Your task to perform on an android device: change notifications settings Image 0: 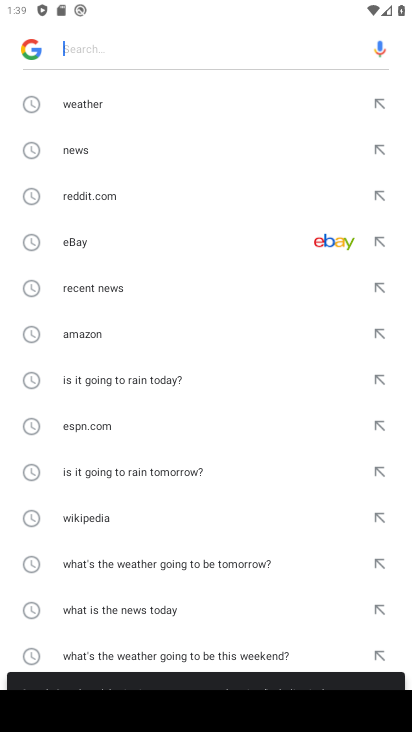
Step 0: press home button
Your task to perform on an android device: change notifications settings Image 1: 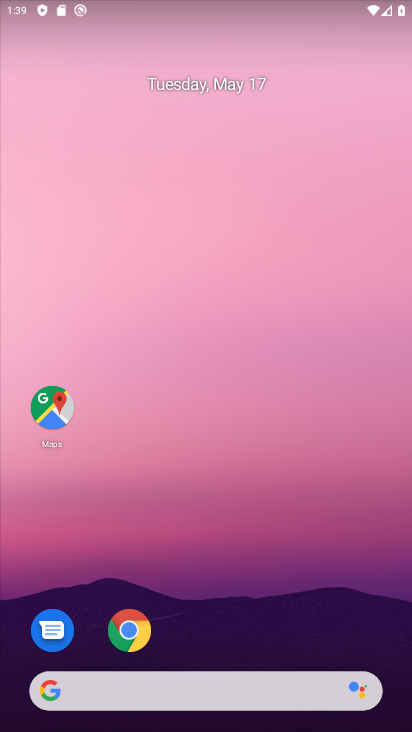
Step 1: drag from (335, 600) to (285, 207)
Your task to perform on an android device: change notifications settings Image 2: 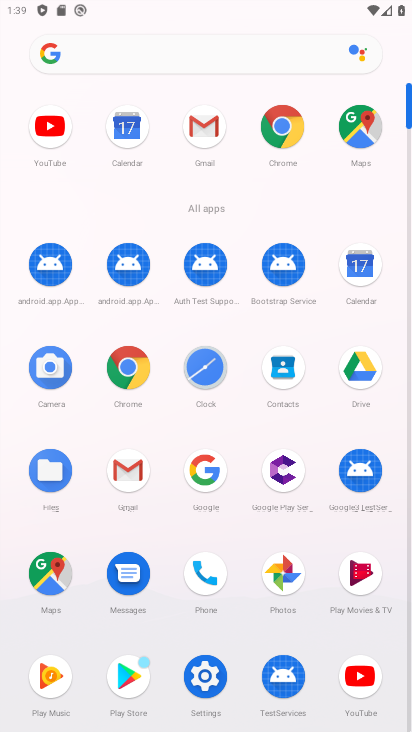
Step 2: click (214, 680)
Your task to perform on an android device: change notifications settings Image 3: 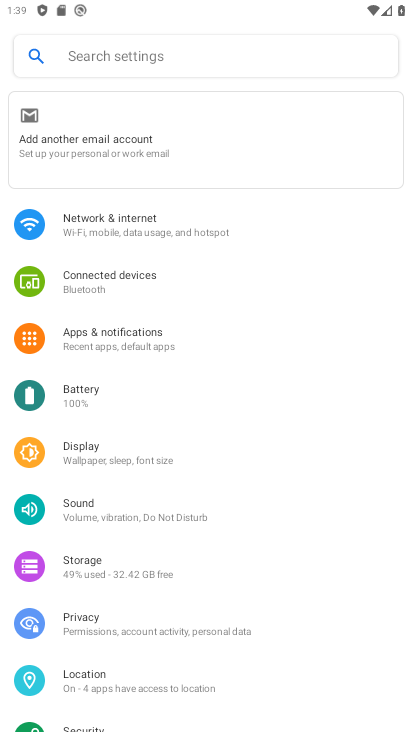
Step 3: click (130, 335)
Your task to perform on an android device: change notifications settings Image 4: 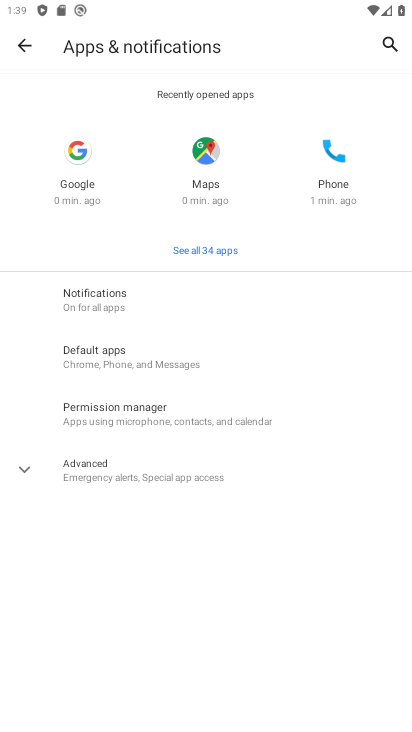
Step 4: click (120, 307)
Your task to perform on an android device: change notifications settings Image 5: 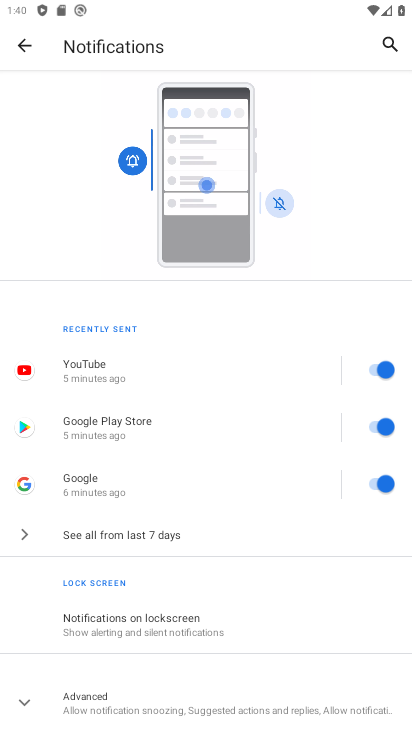
Step 5: task complete